Your task to perform on an android device: What is the news today? Image 0: 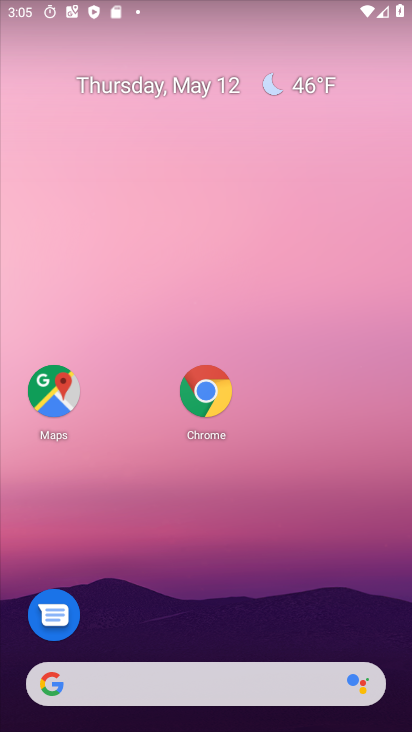
Step 0: drag from (180, 583) to (236, 66)
Your task to perform on an android device: What is the news today? Image 1: 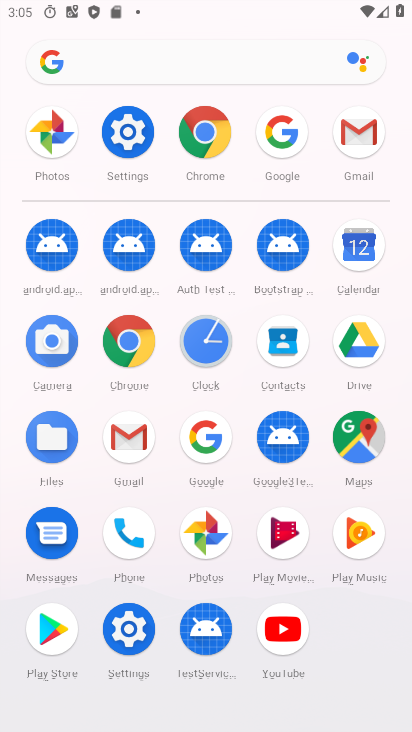
Step 1: click (213, 432)
Your task to perform on an android device: What is the news today? Image 2: 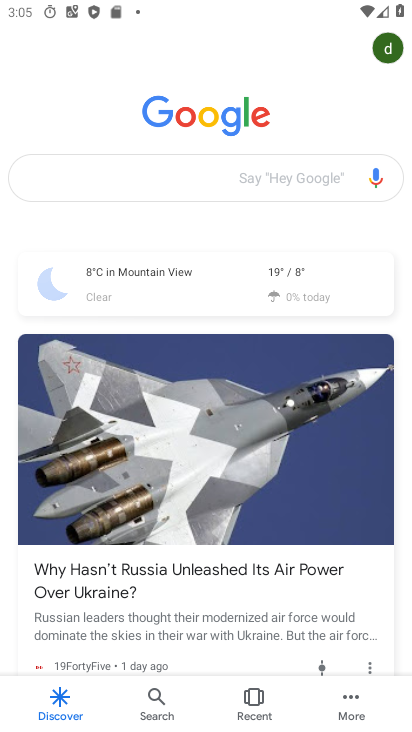
Step 2: click (161, 183)
Your task to perform on an android device: What is the news today? Image 3: 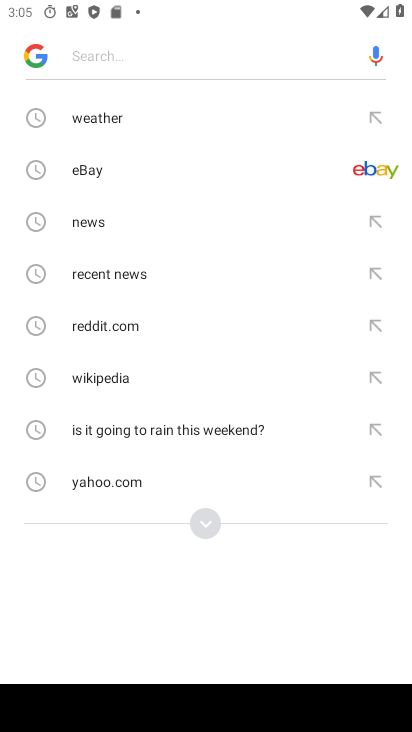
Step 3: click (98, 215)
Your task to perform on an android device: What is the news today? Image 4: 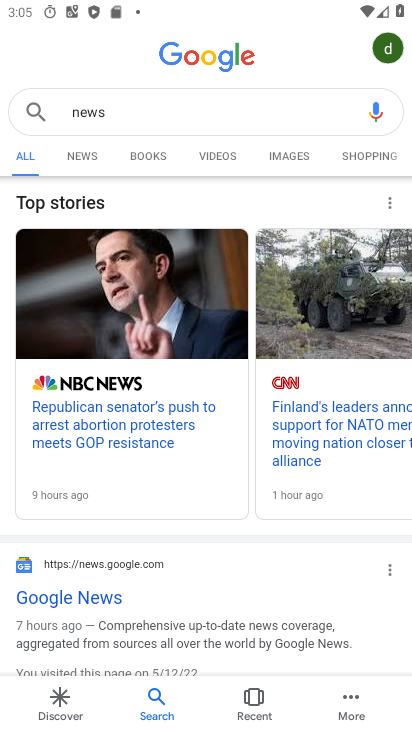
Step 4: task complete